Your task to perform on an android device: Check out the new ikea catalog. Image 0: 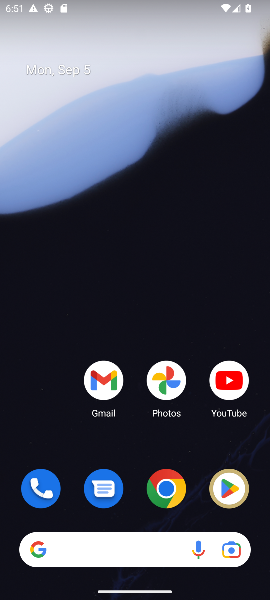
Step 0: click (165, 500)
Your task to perform on an android device: Check out the new ikea catalog. Image 1: 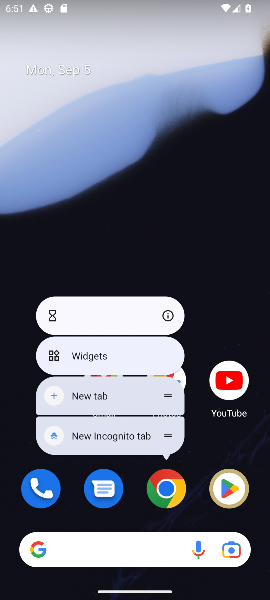
Step 1: click (163, 490)
Your task to perform on an android device: Check out the new ikea catalog. Image 2: 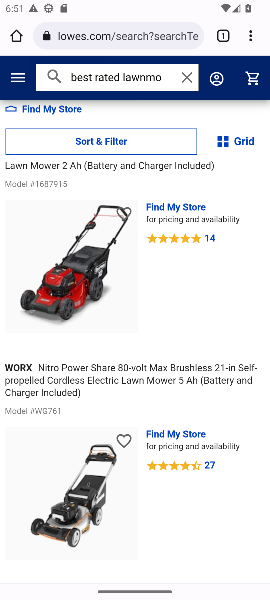
Step 2: click (116, 37)
Your task to perform on an android device: Check out the new ikea catalog. Image 3: 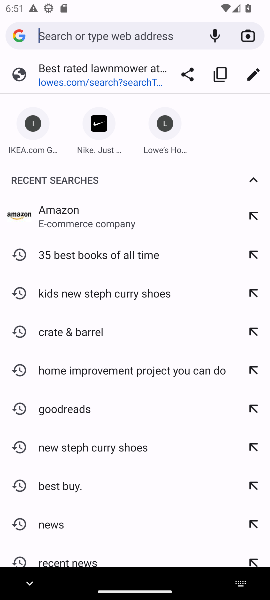
Step 3: type "new ikea catalog"
Your task to perform on an android device: Check out the new ikea catalog. Image 4: 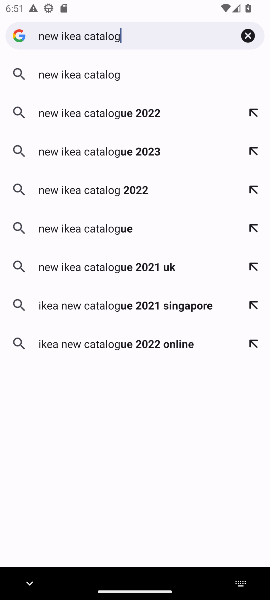
Step 4: press enter
Your task to perform on an android device: Check out the new ikea catalog. Image 5: 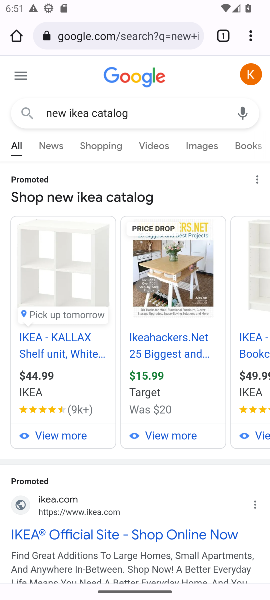
Step 5: click (116, 287)
Your task to perform on an android device: Check out the new ikea catalog. Image 6: 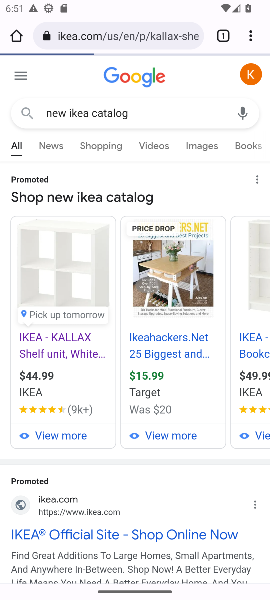
Step 6: drag from (166, 477) to (193, 252)
Your task to perform on an android device: Check out the new ikea catalog. Image 7: 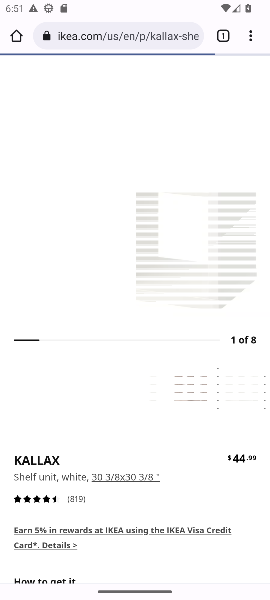
Step 7: press back button
Your task to perform on an android device: Check out the new ikea catalog. Image 8: 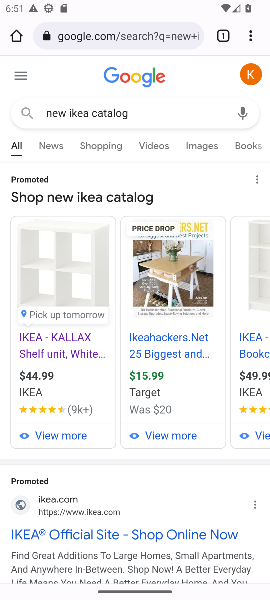
Step 8: drag from (162, 461) to (198, 137)
Your task to perform on an android device: Check out the new ikea catalog. Image 9: 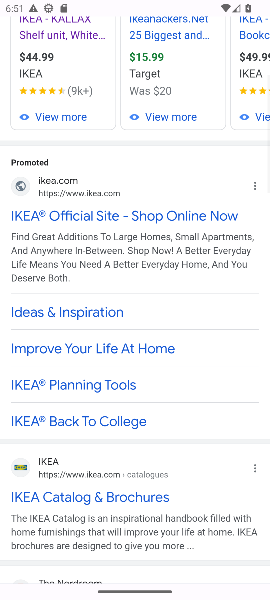
Step 9: click (134, 500)
Your task to perform on an android device: Check out the new ikea catalog. Image 10: 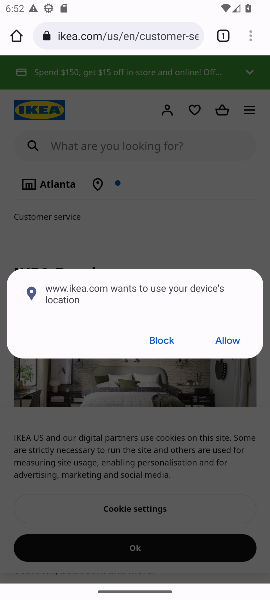
Step 10: click (220, 343)
Your task to perform on an android device: Check out the new ikea catalog. Image 11: 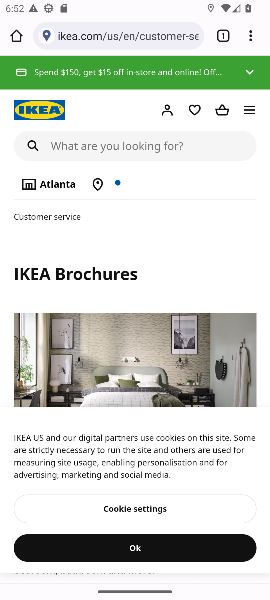
Step 11: drag from (221, 426) to (207, 152)
Your task to perform on an android device: Check out the new ikea catalog. Image 12: 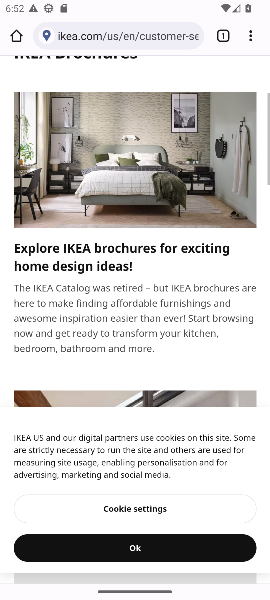
Step 12: click (196, 549)
Your task to perform on an android device: Check out the new ikea catalog. Image 13: 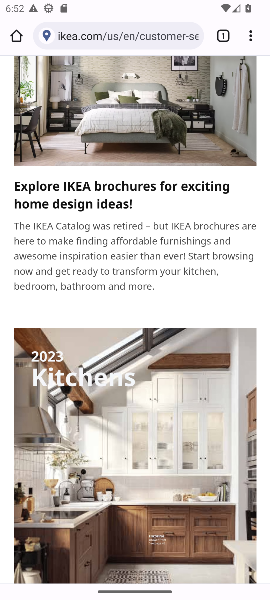
Step 13: drag from (211, 288) to (205, 119)
Your task to perform on an android device: Check out the new ikea catalog. Image 14: 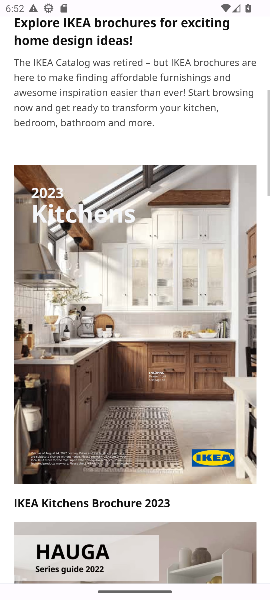
Step 14: drag from (194, 509) to (174, 154)
Your task to perform on an android device: Check out the new ikea catalog. Image 15: 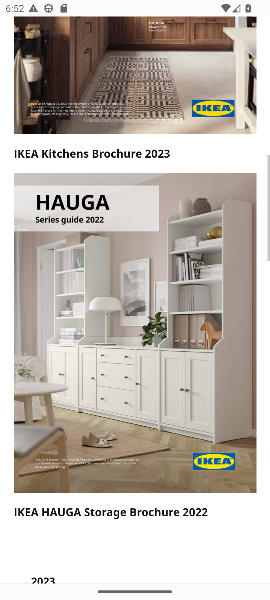
Step 15: click (194, 304)
Your task to perform on an android device: Check out the new ikea catalog. Image 16: 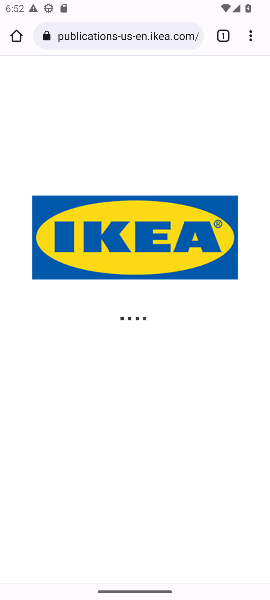
Step 16: task complete